Your task to perform on an android device: What's the weather going to be tomorrow? Image 0: 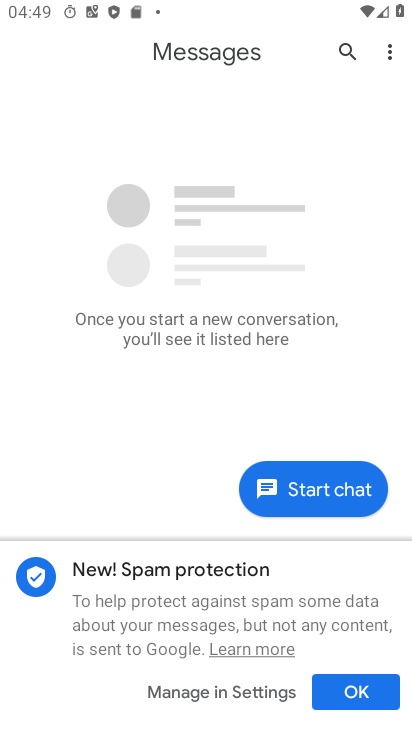
Step 0: press home button
Your task to perform on an android device: What's the weather going to be tomorrow? Image 1: 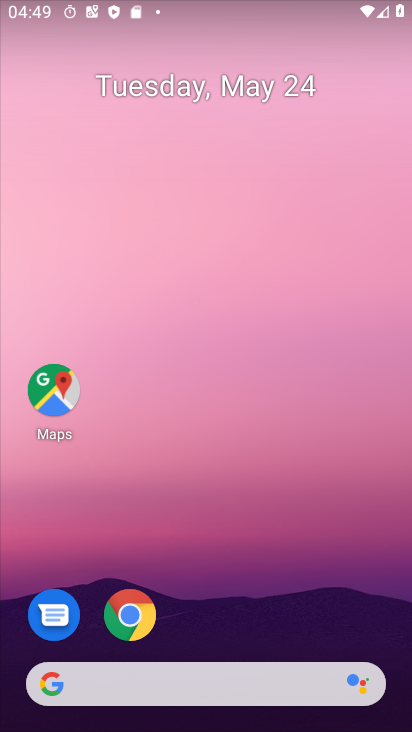
Step 1: click (198, 682)
Your task to perform on an android device: What's the weather going to be tomorrow? Image 2: 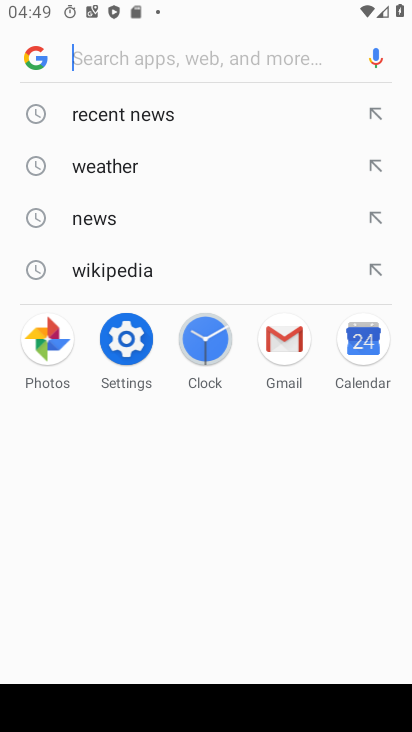
Step 2: click (121, 169)
Your task to perform on an android device: What's the weather going to be tomorrow? Image 3: 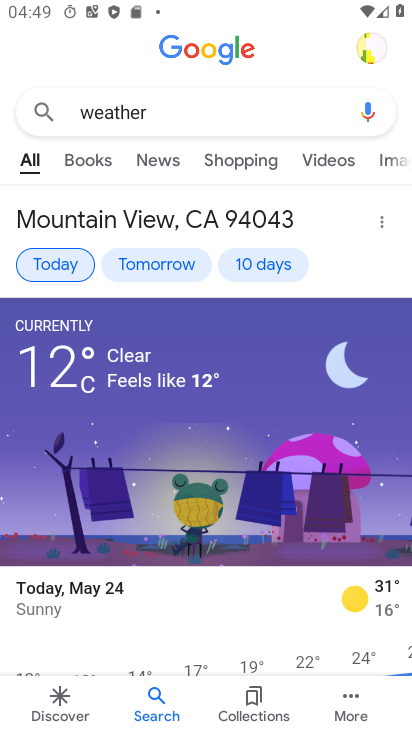
Step 3: click (154, 268)
Your task to perform on an android device: What's the weather going to be tomorrow? Image 4: 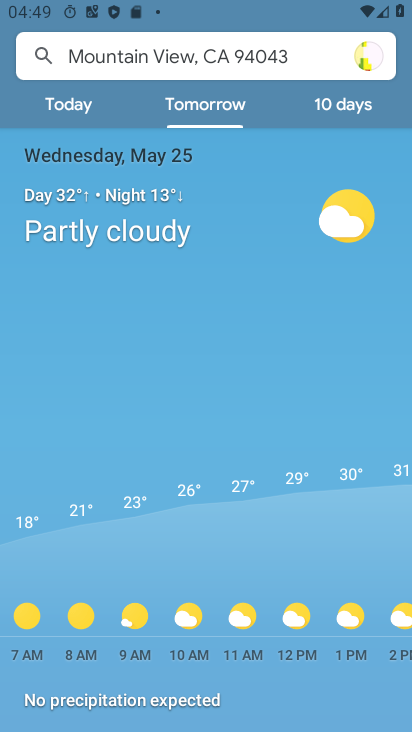
Step 4: task complete